Your task to perform on an android device: Open eBay Image 0: 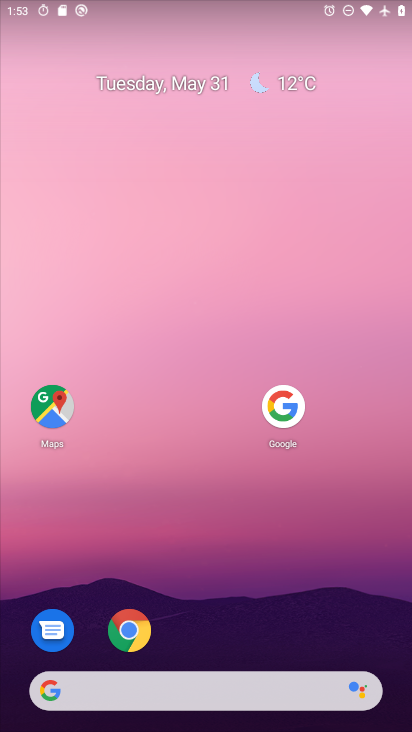
Step 0: press home button
Your task to perform on an android device: Open eBay Image 1: 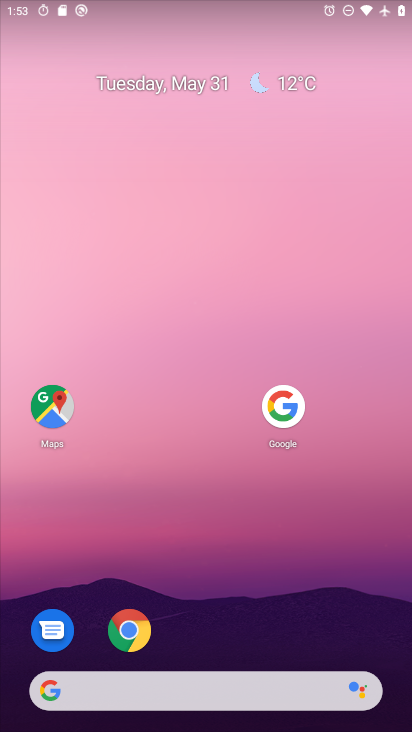
Step 1: click (133, 626)
Your task to perform on an android device: Open eBay Image 2: 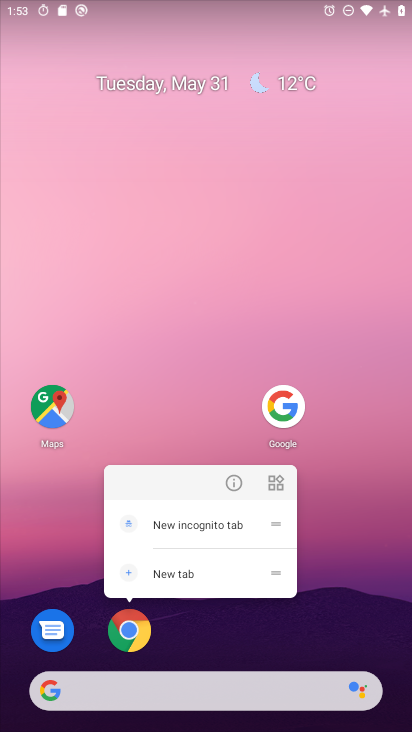
Step 2: click (130, 631)
Your task to perform on an android device: Open eBay Image 3: 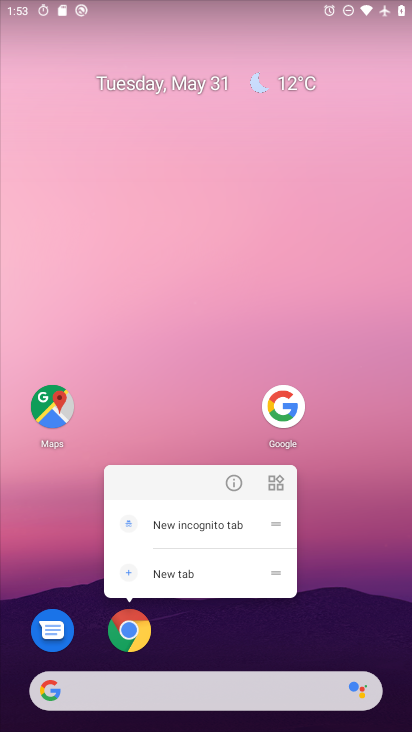
Step 3: click (117, 640)
Your task to perform on an android device: Open eBay Image 4: 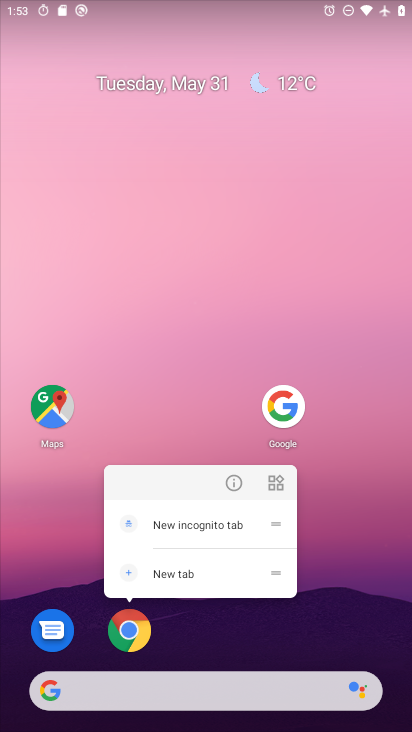
Step 4: click (133, 627)
Your task to perform on an android device: Open eBay Image 5: 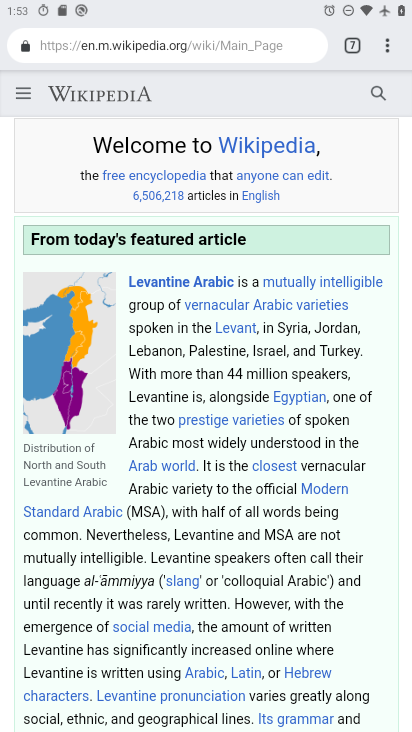
Step 5: drag from (381, 45) to (248, 143)
Your task to perform on an android device: Open eBay Image 6: 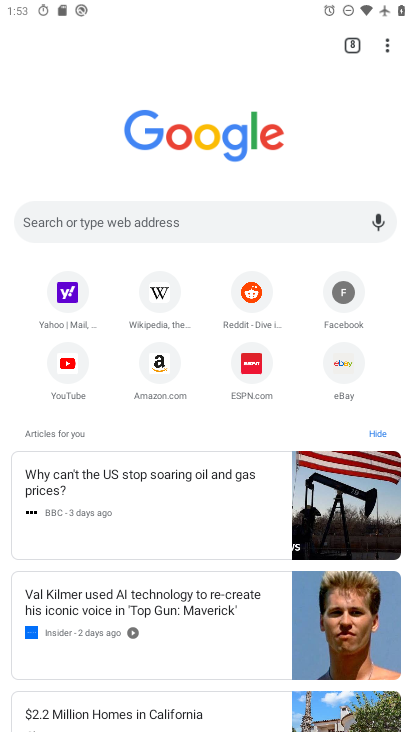
Step 6: click (358, 370)
Your task to perform on an android device: Open eBay Image 7: 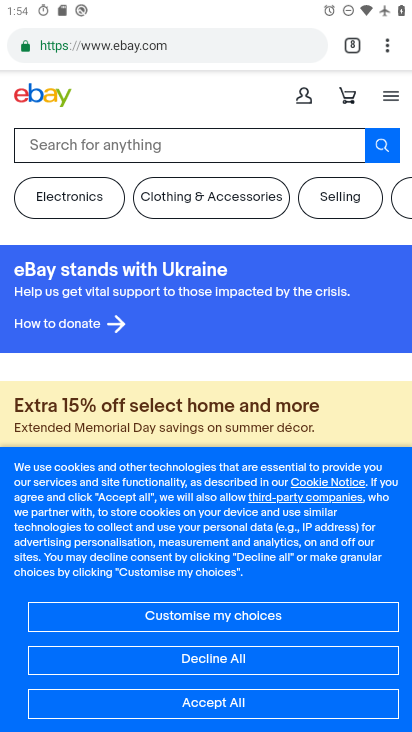
Step 7: task complete